Your task to perform on an android device: toggle translation in the chrome app Image 0: 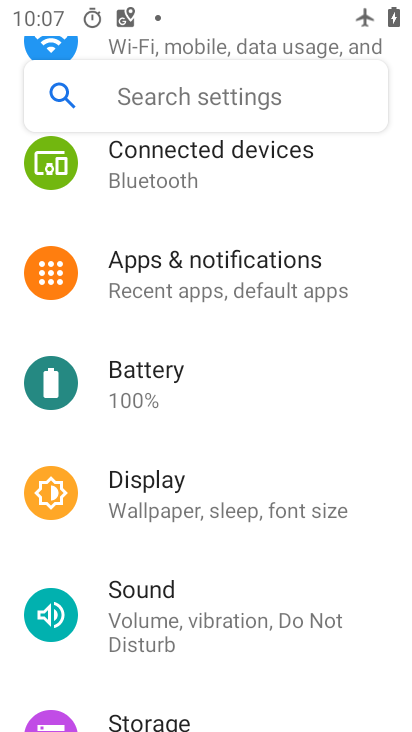
Step 0: press home button
Your task to perform on an android device: toggle translation in the chrome app Image 1: 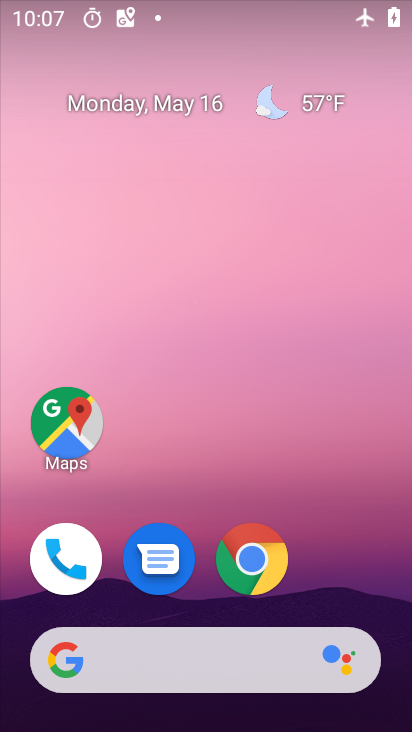
Step 1: click (273, 563)
Your task to perform on an android device: toggle translation in the chrome app Image 2: 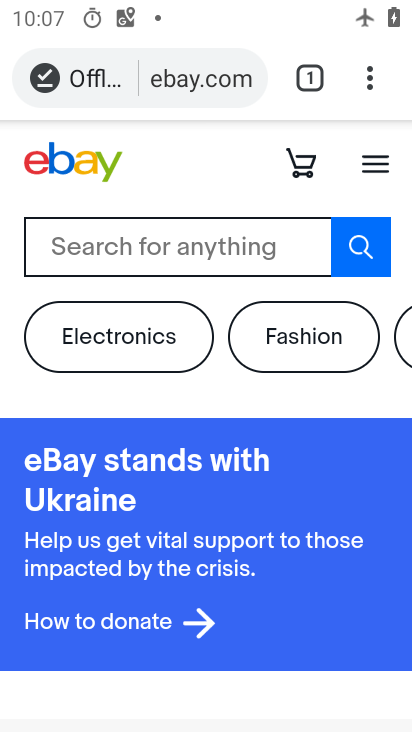
Step 2: drag from (370, 81) to (219, 617)
Your task to perform on an android device: toggle translation in the chrome app Image 3: 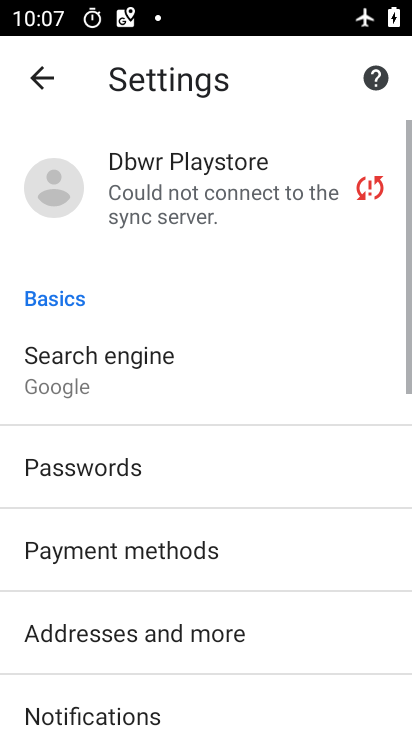
Step 3: drag from (205, 507) to (263, 19)
Your task to perform on an android device: toggle translation in the chrome app Image 4: 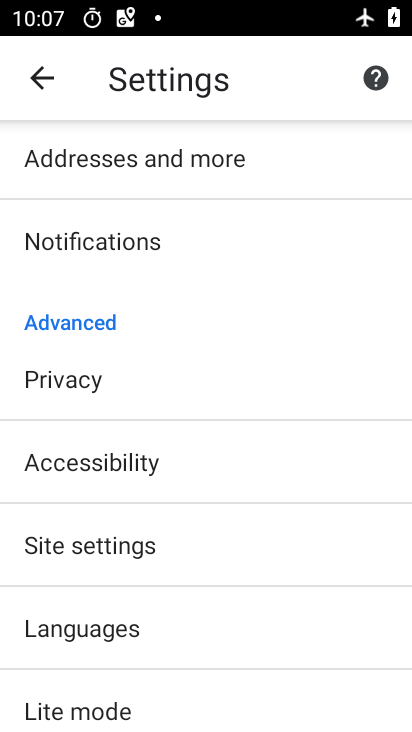
Step 4: click (118, 616)
Your task to perform on an android device: toggle translation in the chrome app Image 5: 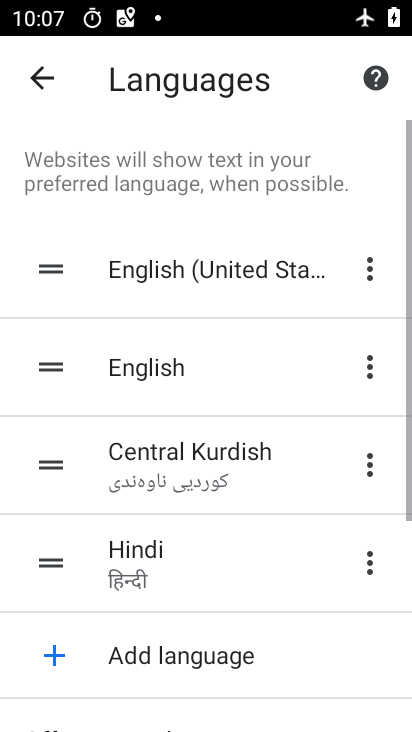
Step 5: drag from (263, 617) to (322, 197)
Your task to perform on an android device: toggle translation in the chrome app Image 6: 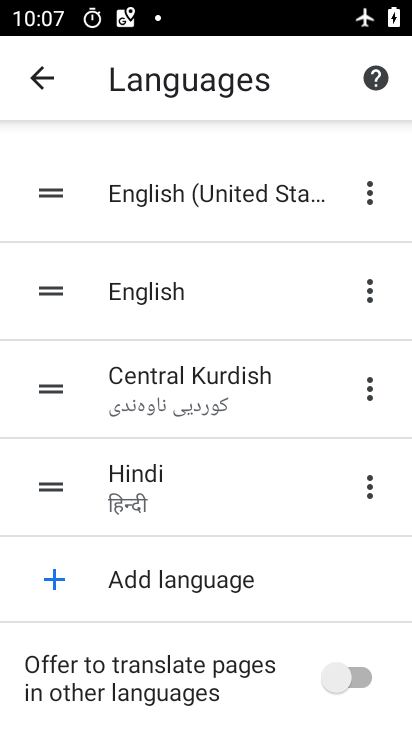
Step 6: click (329, 691)
Your task to perform on an android device: toggle translation in the chrome app Image 7: 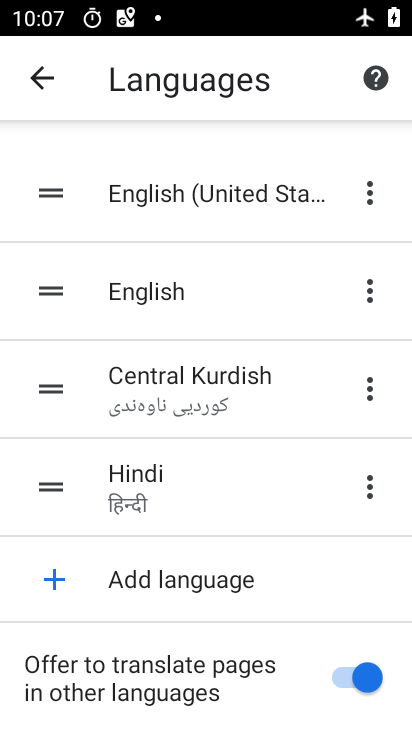
Step 7: task complete